Your task to perform on an android device: Open Google Chrome and click the shortcut for Amazon.com Image 0: 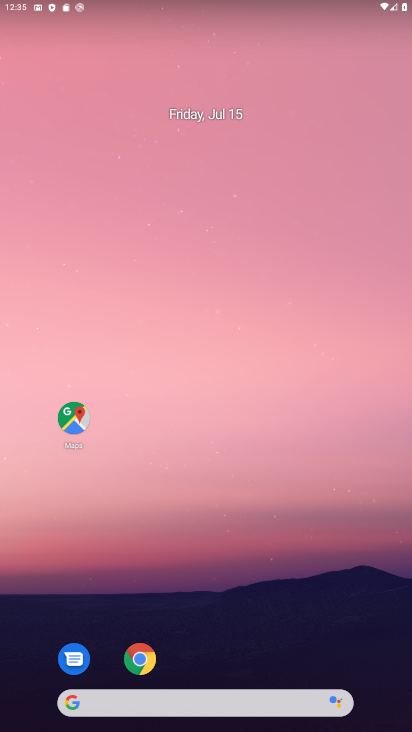
Step 0: drag from (202, 715) to (233, 99)
Your task to perform on an android device: Open Google Chrome and click the shortcut for Amazon.com Image 1: 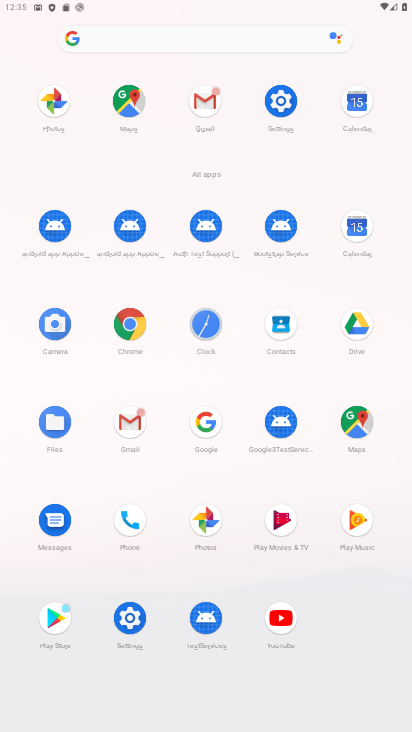
Step 1: click (132, 323)
Your task to perform on an android device: Open Google Chrome and click the shortcut for Amazon.com Image 2: 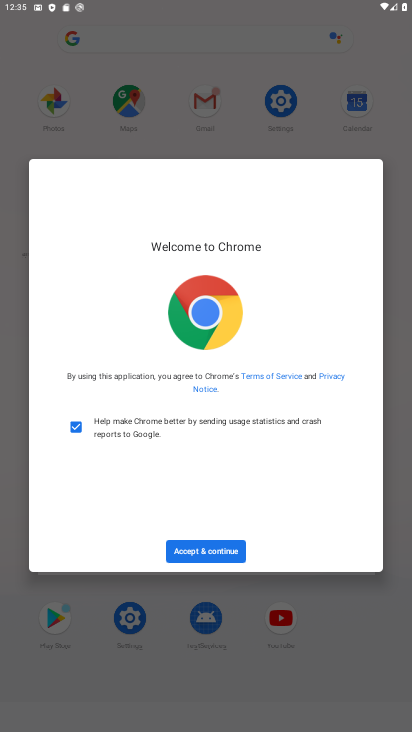
Step 2: click (197, 549)
Your task to perform on an android device: Open Google Chrome and click the shortcut for Amazon.com Image 3: 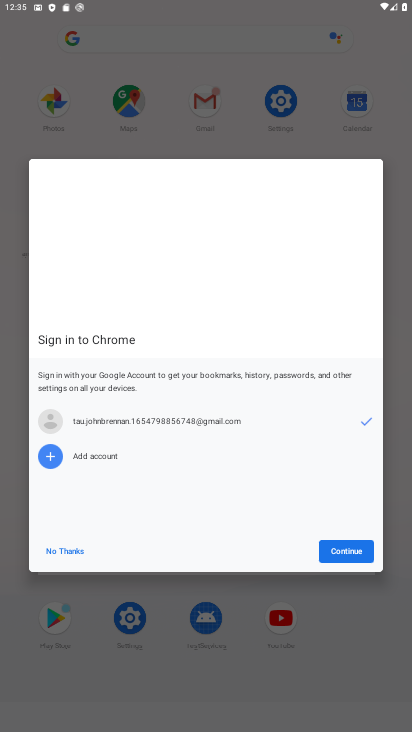
Step 3: click (332, 548)
Your task to perform on an android device: Open Google Chrome and click the shortcut for Amazon.com Image 4: 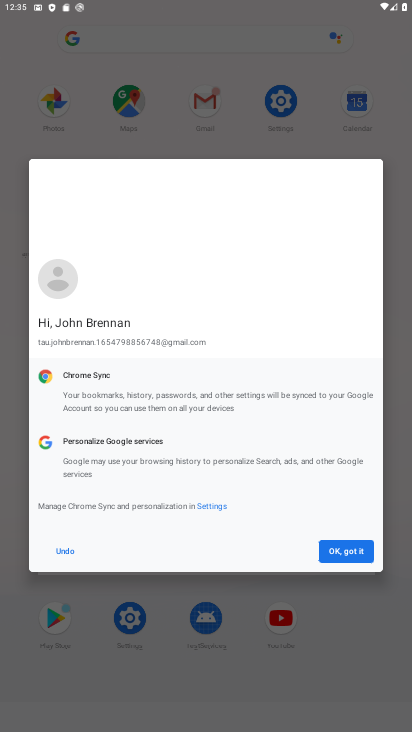
Step 4: click (332, 548)
Your task to perform on an android device: Open Google Chrome and click the shortcut for Amazon.com Image 5: 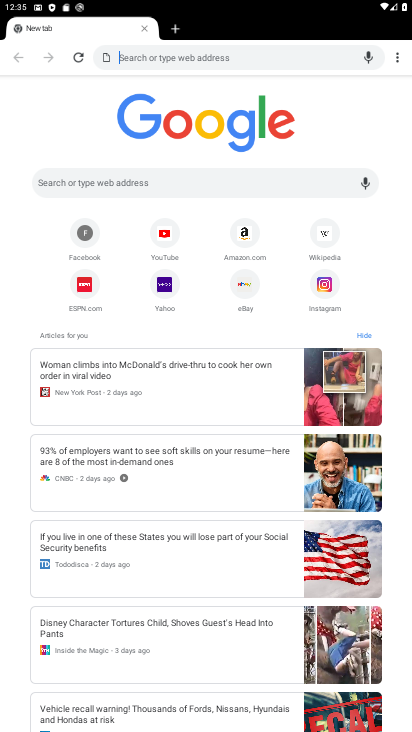
Step 5: click (240, 242)
Your task to perform on an android device: Open Google Chrome and click the shortcut for Amazon.com Image 6: 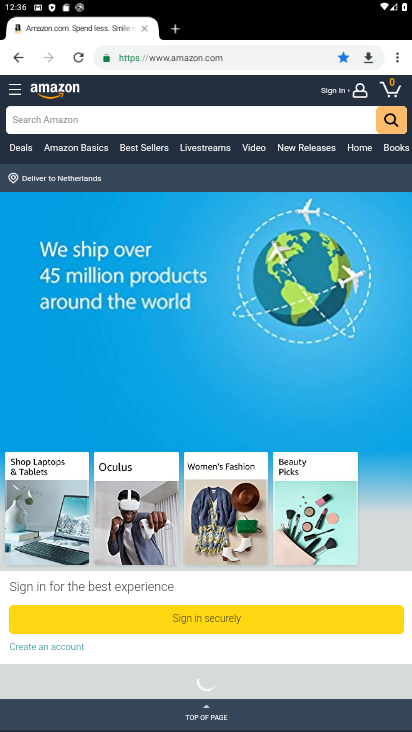
Step 6: task complete